Your task to perform on an android device: Open Google Chrome and open the bookmarks view Image 0: 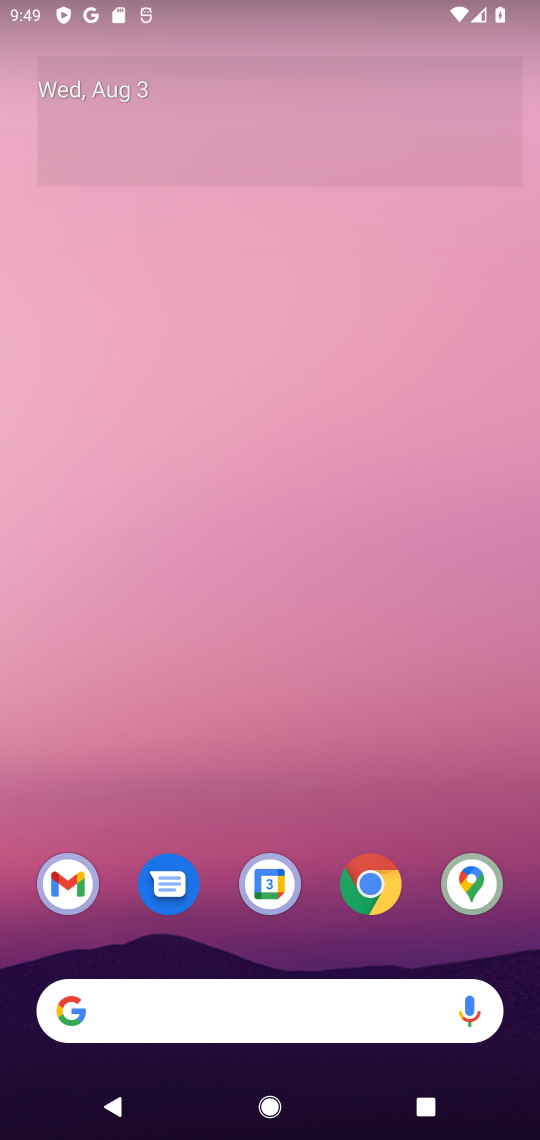
Step 0: press home button
Your task to perform on an android device: Open Google Chrome and open the bookmarks view Image 1: 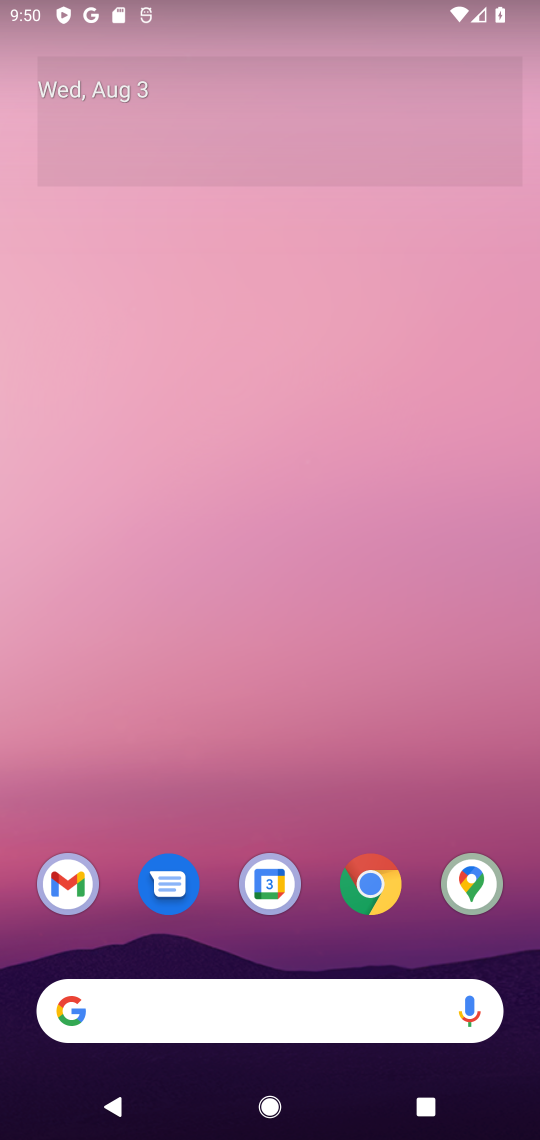
Step 1: click (367, 878)
Your task to perform on an android device: Open Google Chrome and open the bookmarks view Image 2: 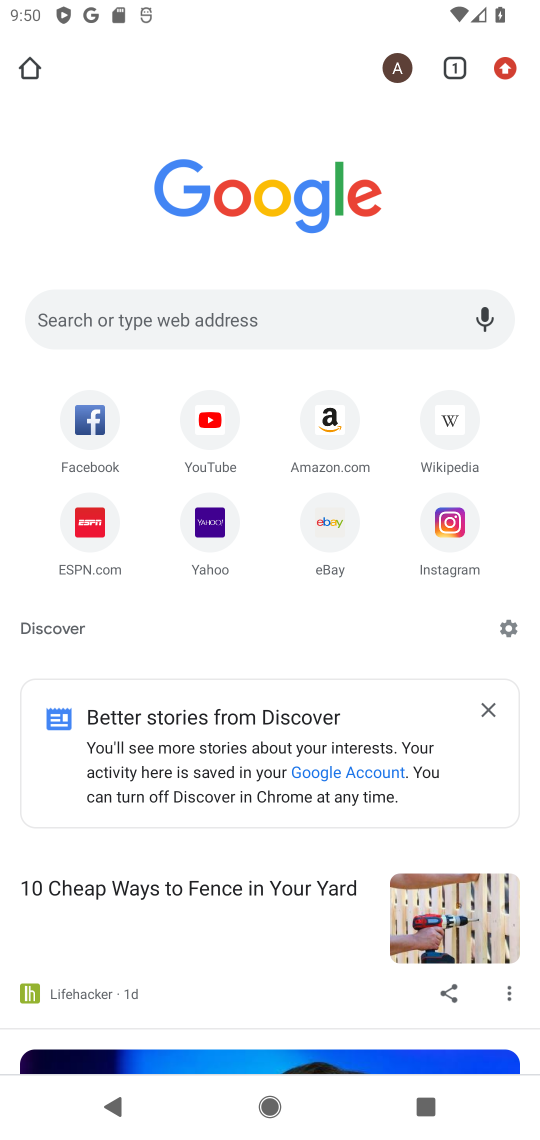
Step 2: task complete